Your task to perform on an android device: change timer sound Image 0: 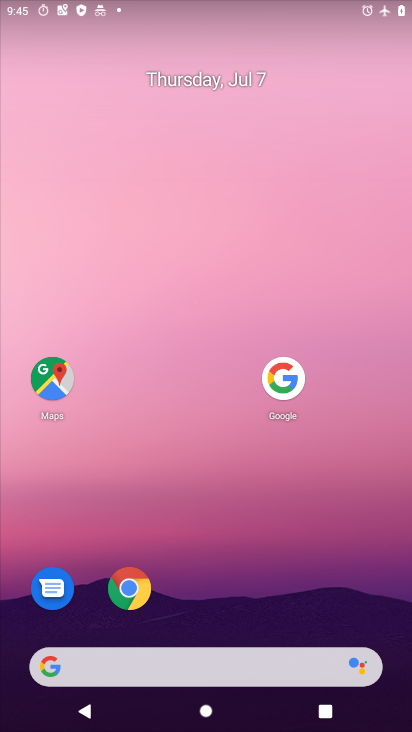
Step 0: press home button
Your task to perform on an android device: change timer sound Image 1: 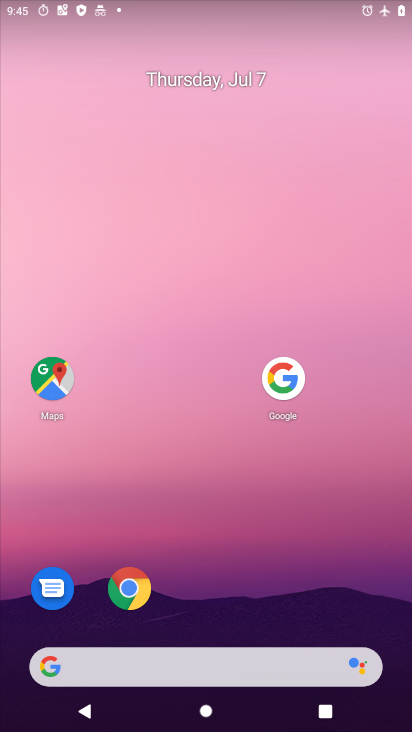
Step 1: drag from (158, 665) to (292, 25)
Your task to perform on an android device: change timer sound Image 2: 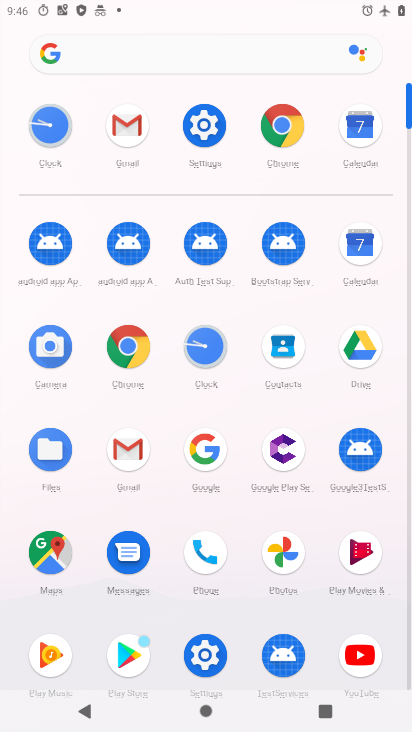
Step 2: click (208, 123)
Your task to perform on an android device: change timer sound Image 3: 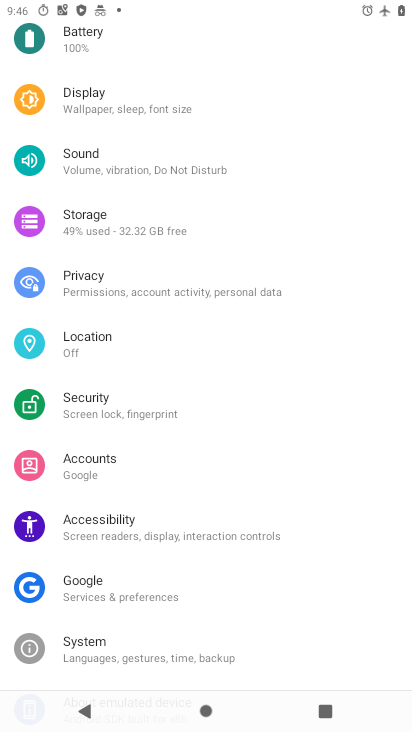
Step 3: press home button
Your task to perform on an android device: change timer sound Image 4: 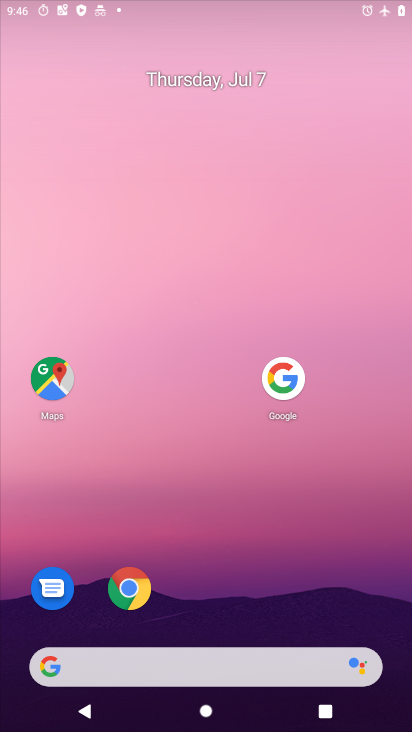
Step 4: drag from (170, 680) to (311, 99)
Your task to perform on an android device: change timer sound Image 5: 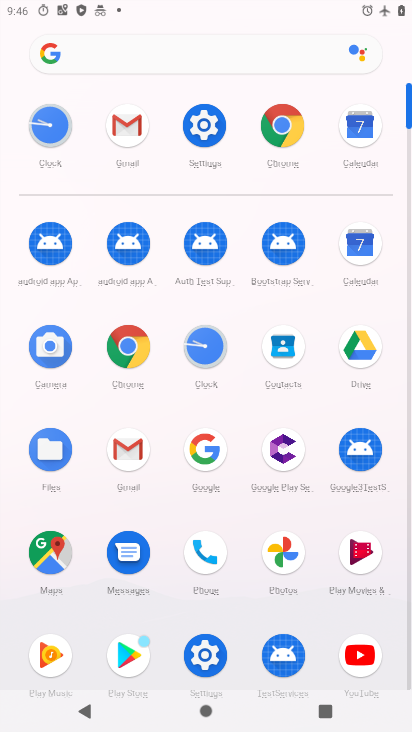
Step 5: click (200, 338)
Your task to perform on an android device: change timer sound Image 6: 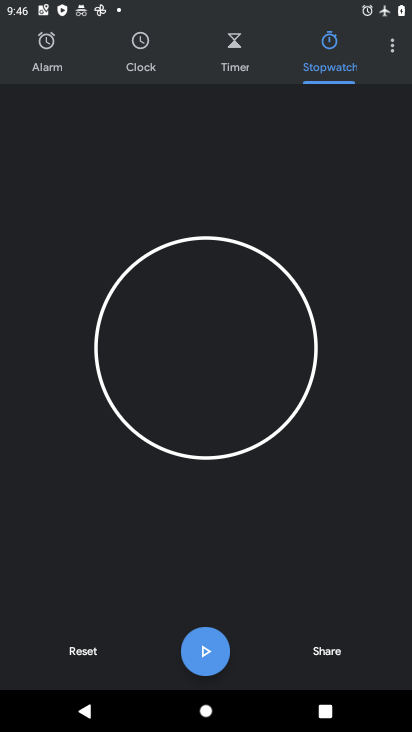
Step 6: click (393, 36)
Your task to perform on an android device: change timer sound Image 7: 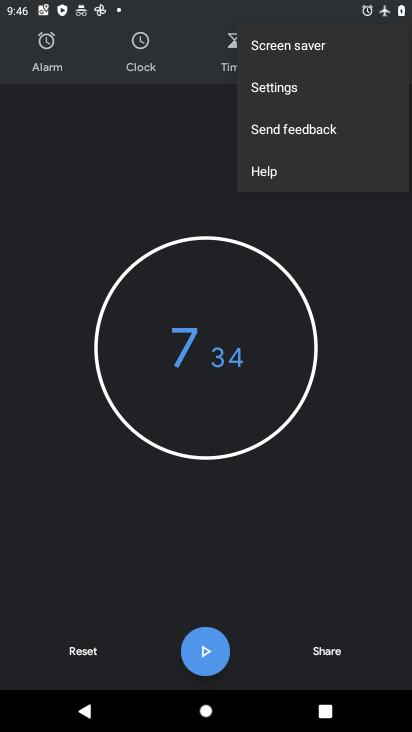
Step 7: click (276, 87)
Your task to perform on an android device: change timer sound Image 8: 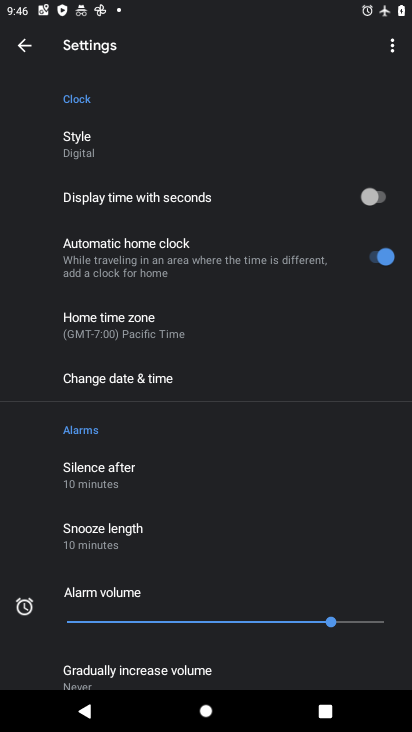
Step 8: drag from (152, 563) to (279, 136)
Your task to perform on an android device: change timer sound Image 9: 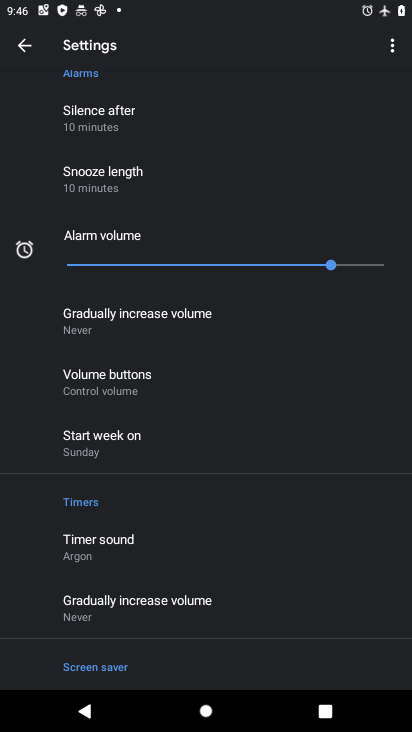
Step 9: click (114, 542)
Your task to perform on an android device: change timer sound Image 10: 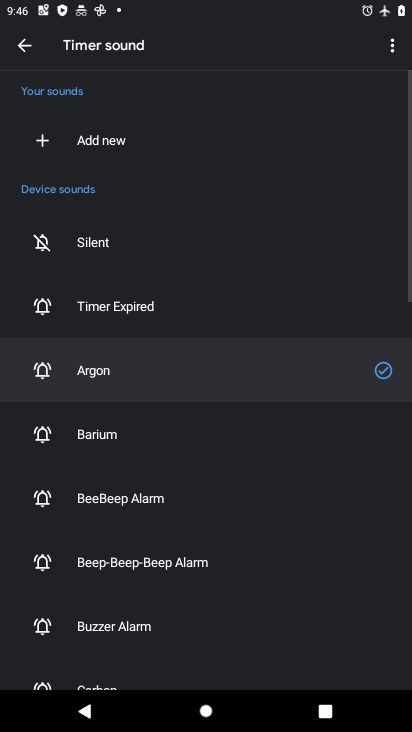
Step 10: click (91, 506)
Your task to perform on an android device: change timer sound Image 11: 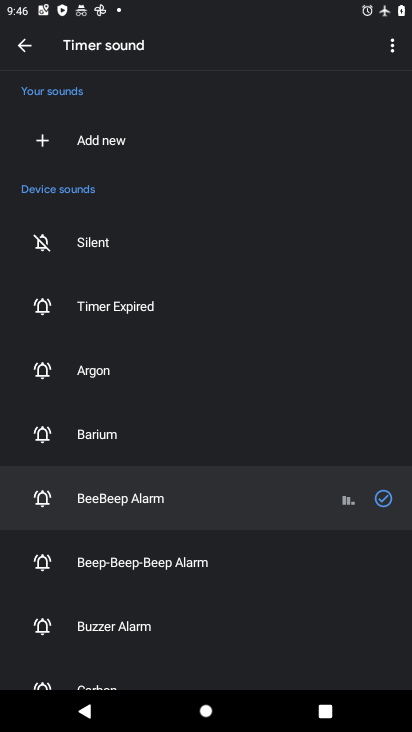
Step 11: task complete